Your task to perform on an android device: What is the recent news? Image 0: 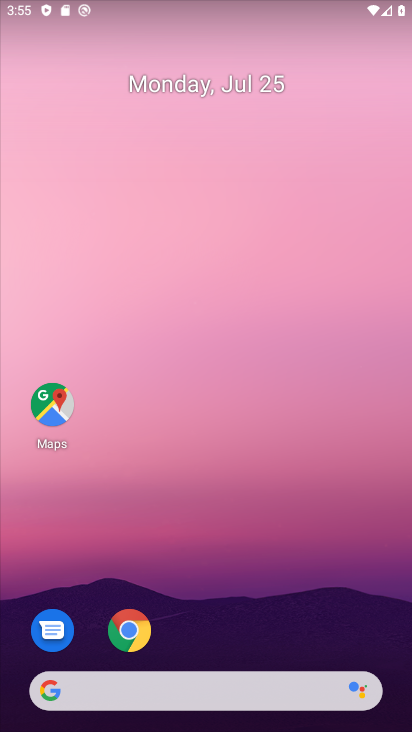
Step 0: drag from (222, 620) to (154, 208)
Your task to perform on an android device: What is the recent news? Image 1: 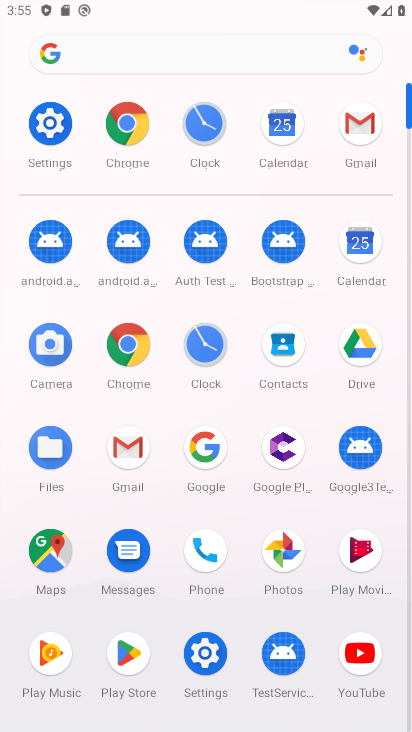
Step 1: click (133, 132)
Your task to perform on an android device: What is the recent news? Image 2: 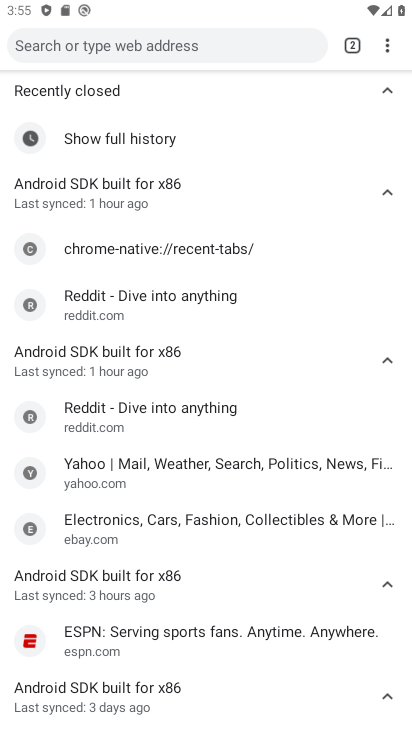
Step 2: click (148, 39)
Your task to perform on an android device: What is the recent news? Image 3: 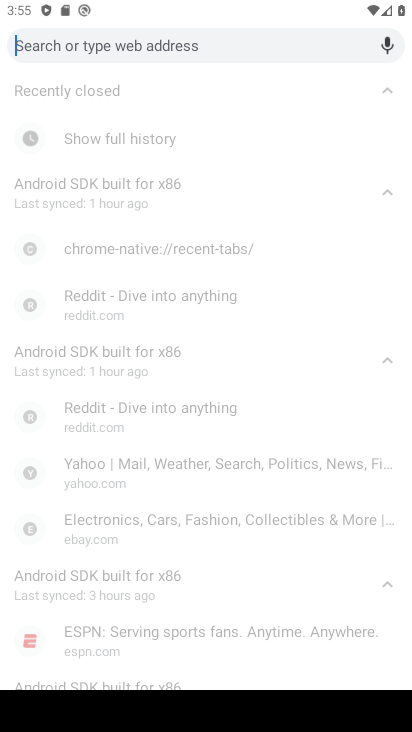
Step 3: type "What is the recent news?"
Your task to perform on an android device: What is the recent news? Image 4: 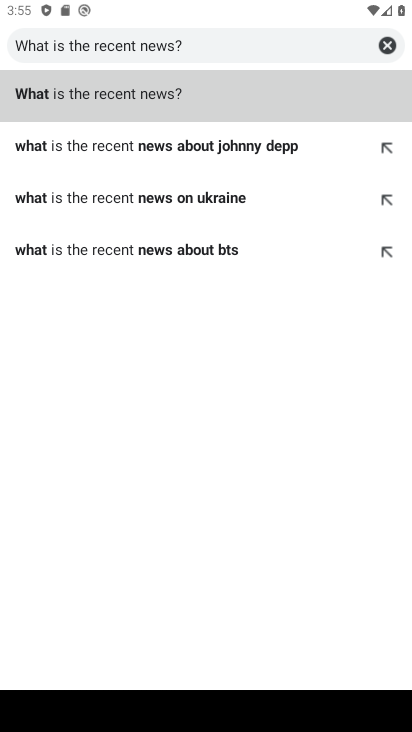
Step 4: click (277, 92)
Your task to perform on an android device: What is the recent news? Image 5: 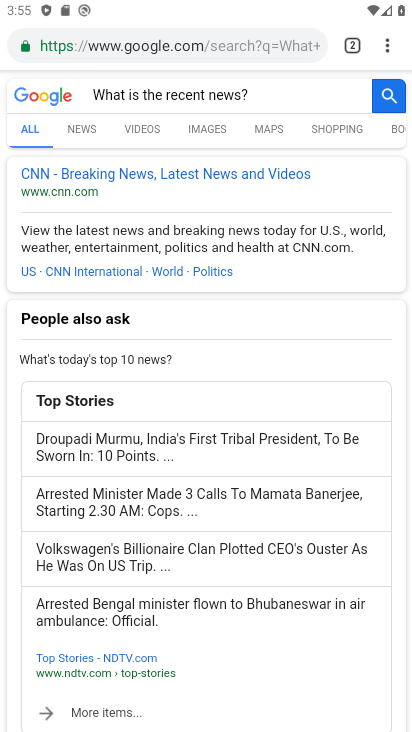
Step 5: click (259, 179)
Your task to perform on an android device: What is the recent news? Image 6: 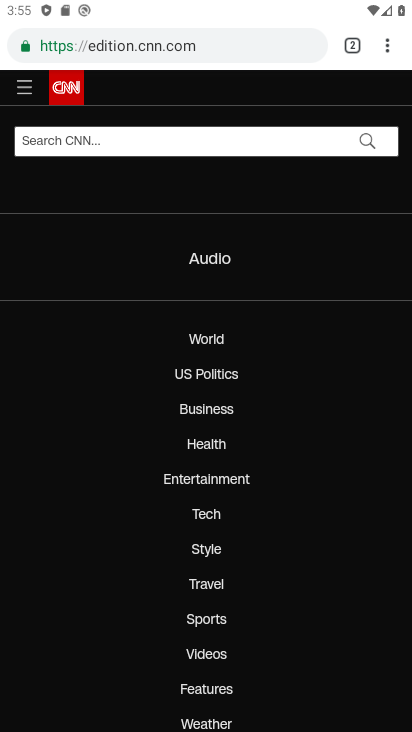
Step 6: task complete